Your task to perform on an android device: delete a single message in the gmail app Image 0: 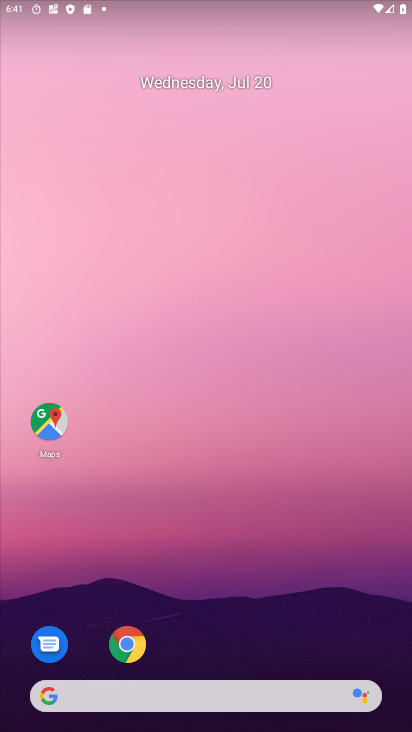
Step 0: press home button
Your task to perform on an android device: delete a single message in the gmail app Image 1: 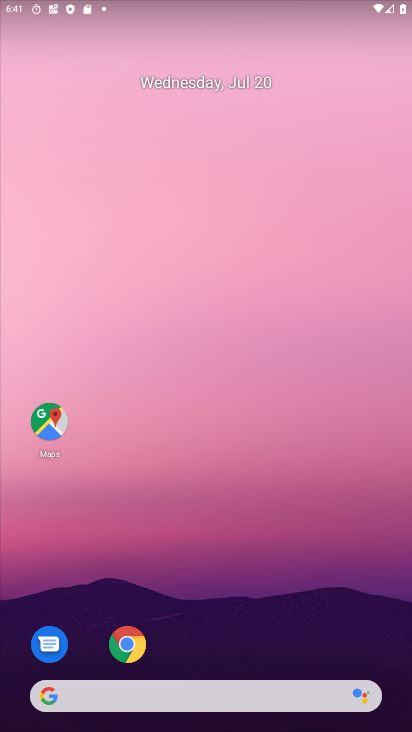
Step 1: drag from (225, 538) to (176, 150)
Your task to perform on an android device: delete a single message in the gmail app Image 2: 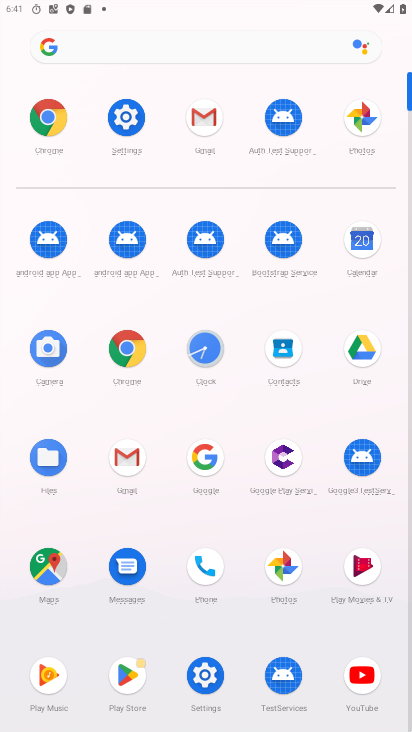
Step 2: click (203, 121)
Your task to perform on an android device: delete a single message in the gmail app Image 3: 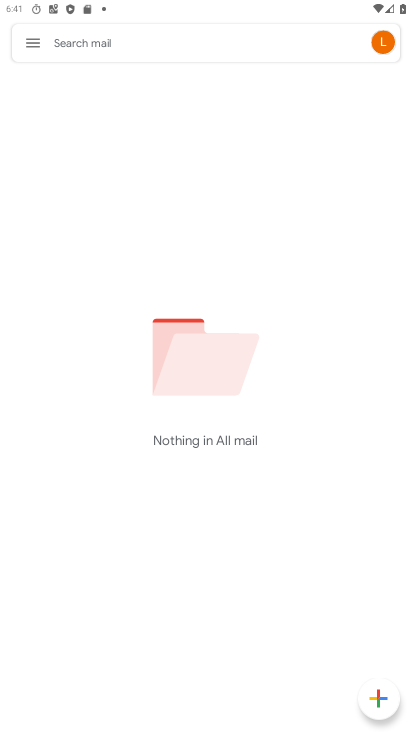
Step 3: click (34, 43)
Your task to perform on an android device: delete a single message in the gmail app Image 4: 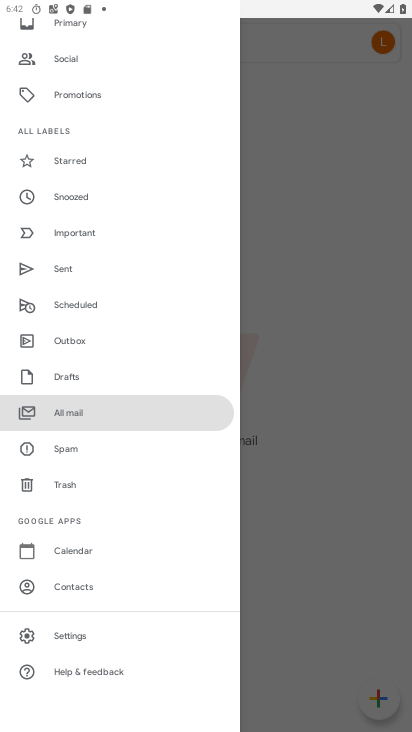
Step 4: click (82, 408)
Your task to perform on an android device: delete a single message in the gmail app Image 5: 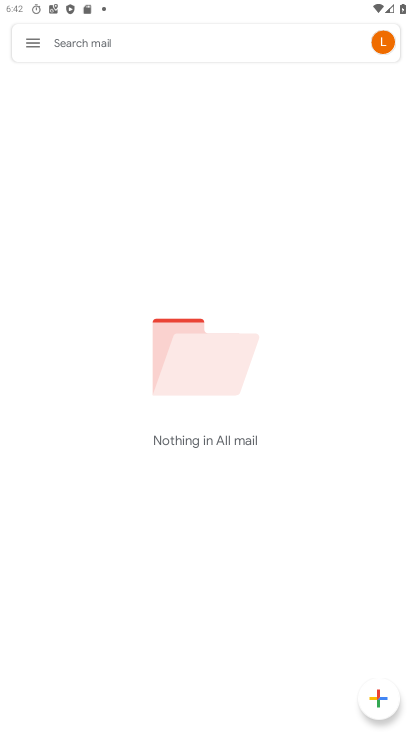
Step 5: task complete